Your task to perform on an android device: Go to Yahoo.com Image 0: 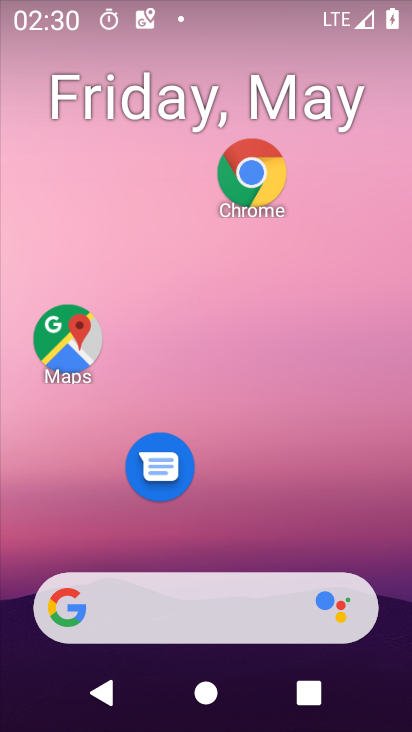
Step 0: drag from (240, 652) to (321, 52)
Your task to perform on an android device: Go to Yahoo.com Image 1: 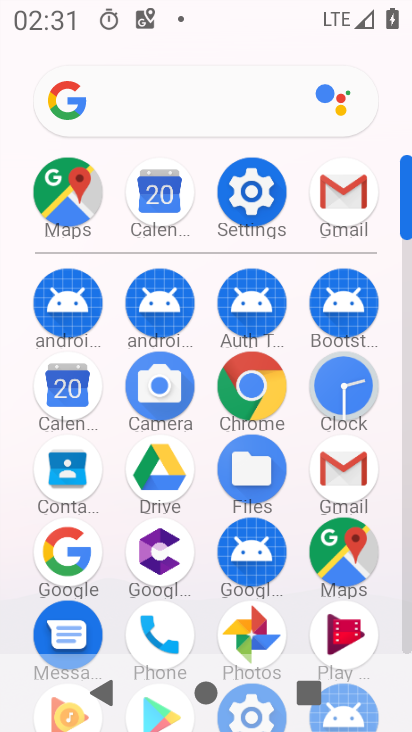
Step 1: click (257, 400)
Your task to perform on an android device: Go to Yahoo.com Image 2: 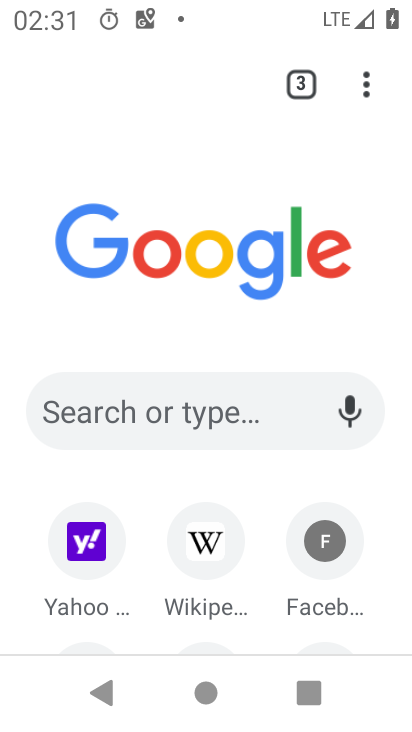
Step 2: click (82, 563)
Your task to perform on an android device: Go to Yahoo.com Image 3: 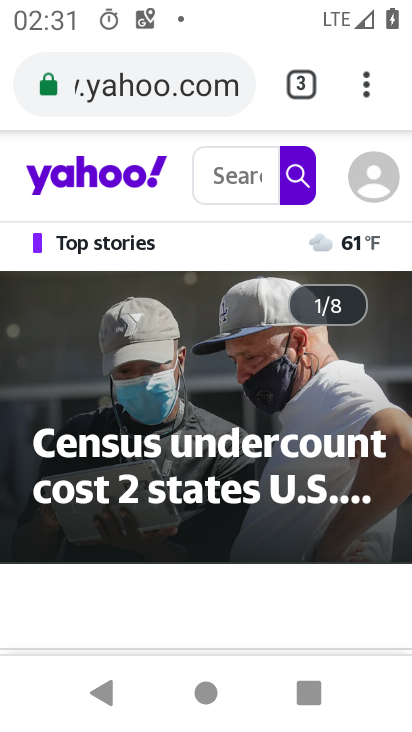
Step 3: task complete